Your task to perform on an android device: Open Chrome and go to the settings page Image 0: 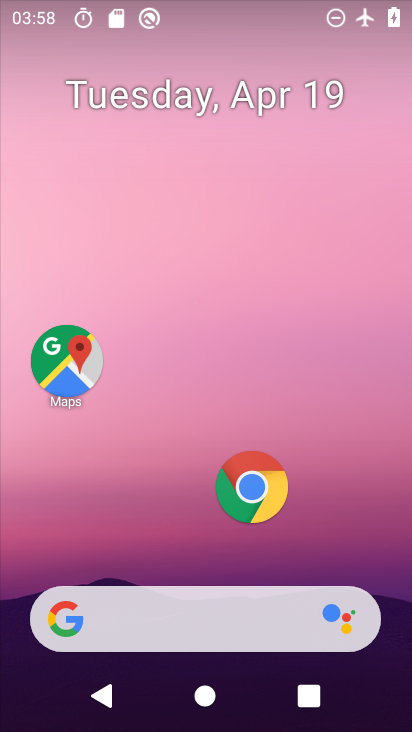
Step 0: click (249, 487)
Your task to perform on an android device: Open Chrome and go to the settings page Image 1: 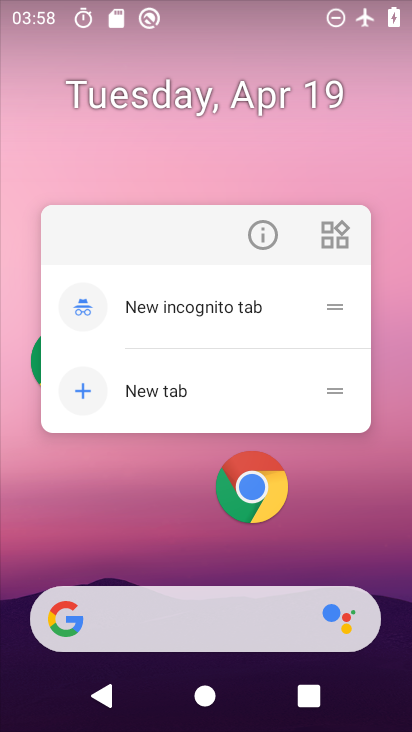
Step 1: click (248, 494)
Your task to perform on an android device: Open Chrome and go to the settings page Image 2: 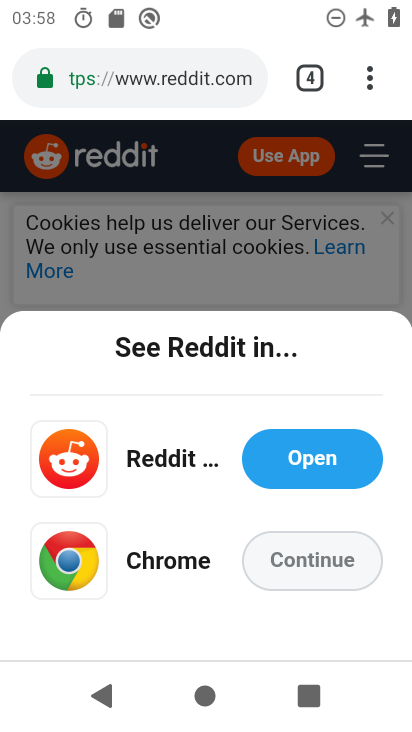
Step 2: task complete